Your task to perform on an android device: Search for "bose soundlink" on newegg, select the first entry, and add it to the cart. Image 0: 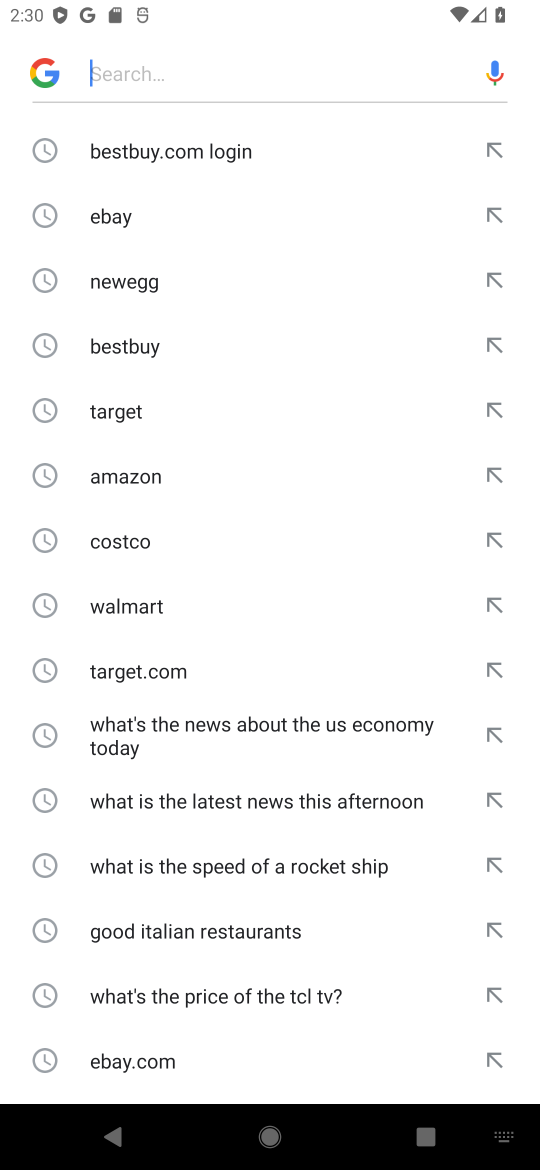
Step 0: press home button
Your task to perform on an android device: Search for "bose soundlink" on newegg, select the first entry, and add it to the cart. Image 1: 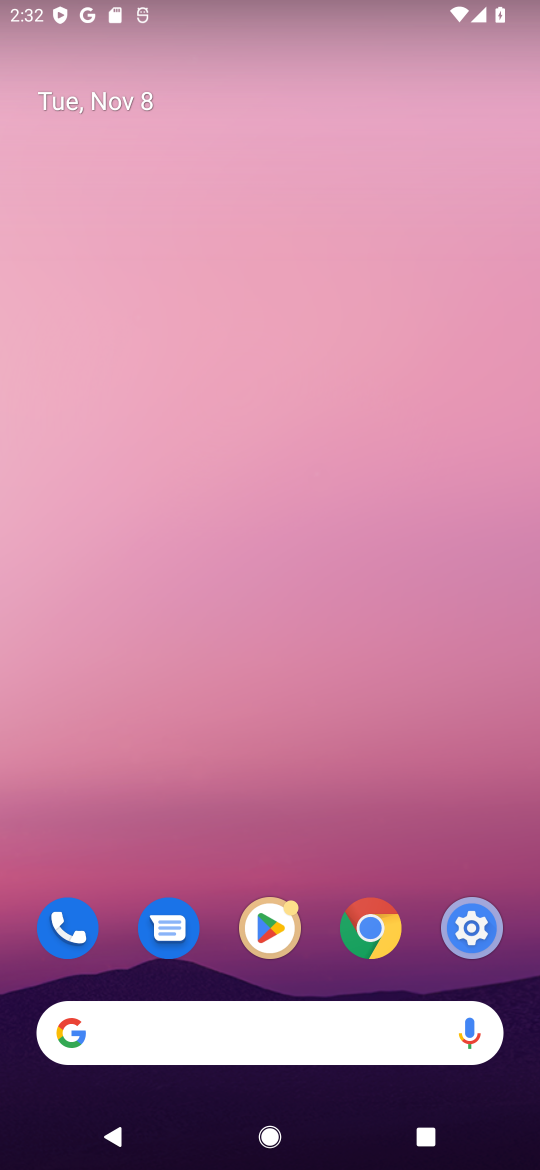
Step 1: drag from (143, 1165) to (234, 1160)
Your task to perform on an android device: Search for "bose soundlink" on newegg, select the first entry, and add it to the cart. Image 2: 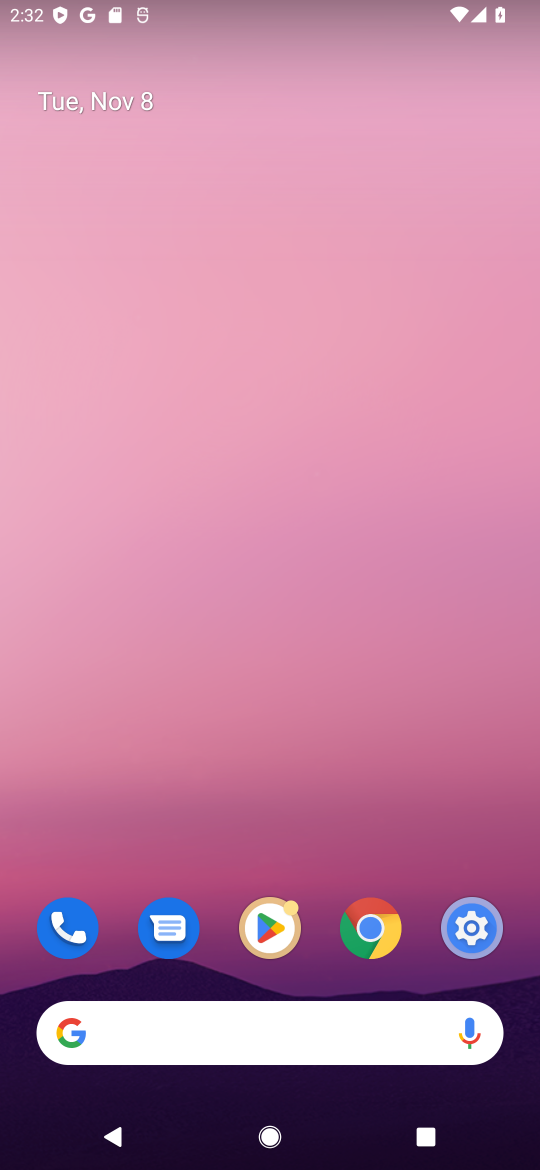
Step 2: click (265, 1033)
Your task to perform on an android device: Search for "bose soundlink" on newegg, select the first entry, and add it to the cart. Image 3: 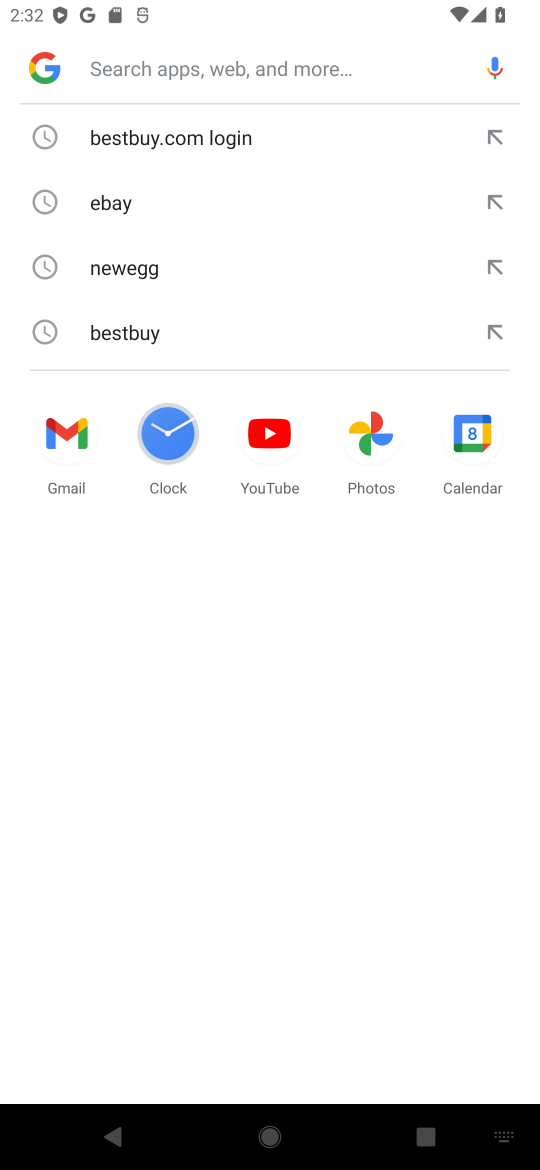
Step 3: type "newegg"
Your task to perform on an android device: Search for "bose soundlink" on newegg, select the first entry, and add it to the cart. Image 4: 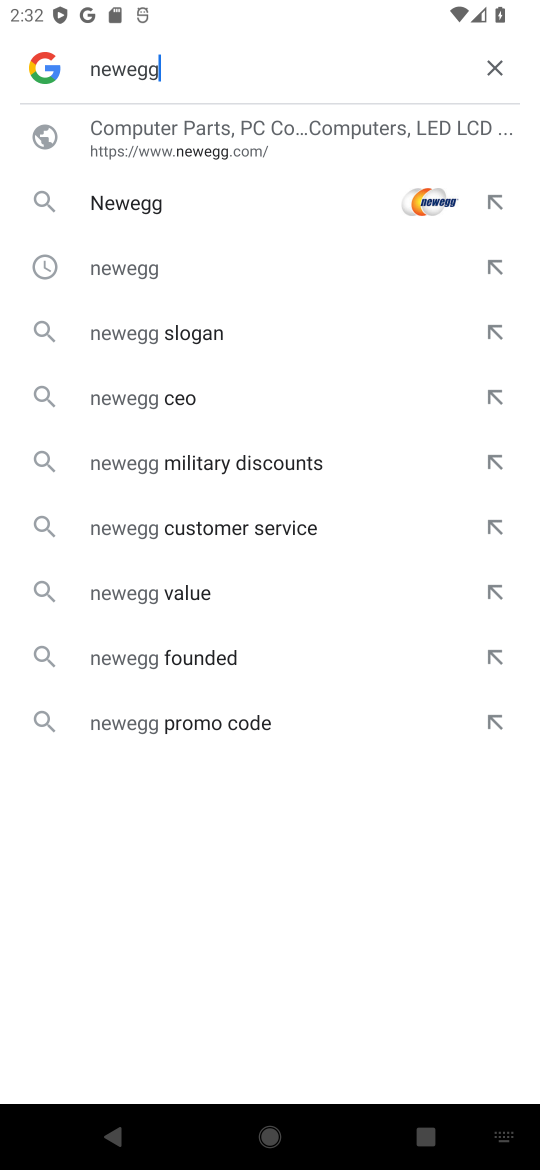
Step 4: click (161, 151)
Your task to perform on an android device: Search for "bose soundlink" on newegg, select the first entry, and add it to the cart. Image 5: 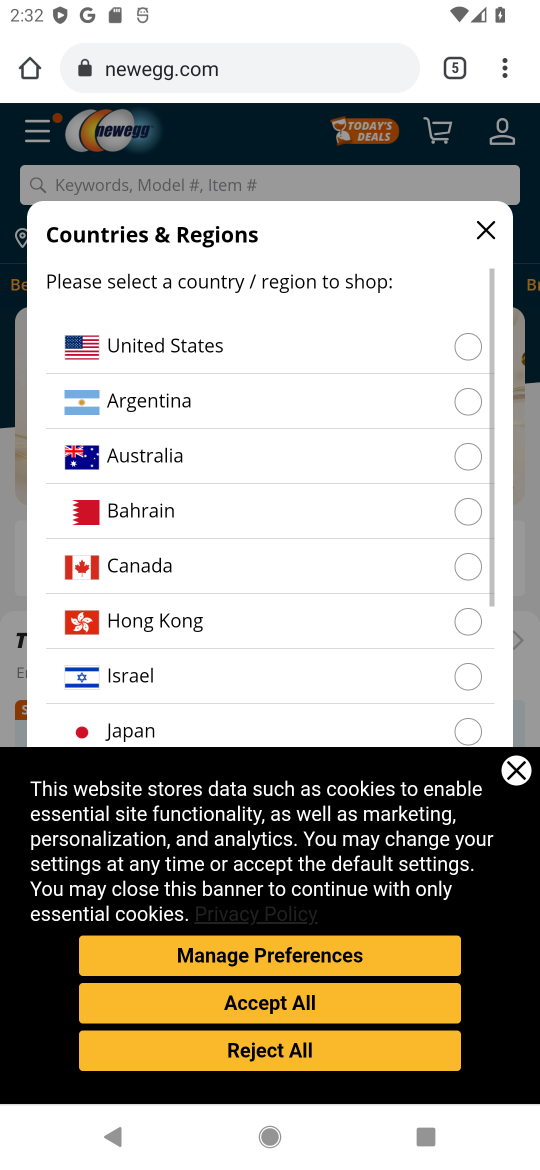
Step 5: click (223, 188)
Your task to perform on an android device: Search for "bose soundlink" on newegg, select the first entry, and add it to the cart. Image 6: 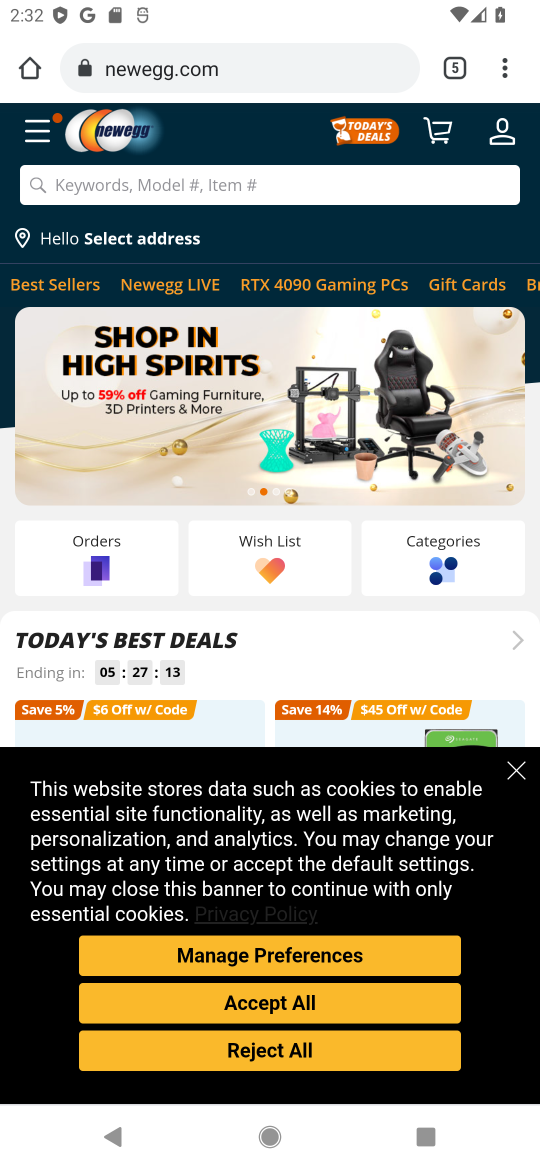
Step 6: click (472, 340)
Your task to perform on an android device: Search for "bose soundlink" on newegg, select the first entry, and add it to the cart. Image 7: 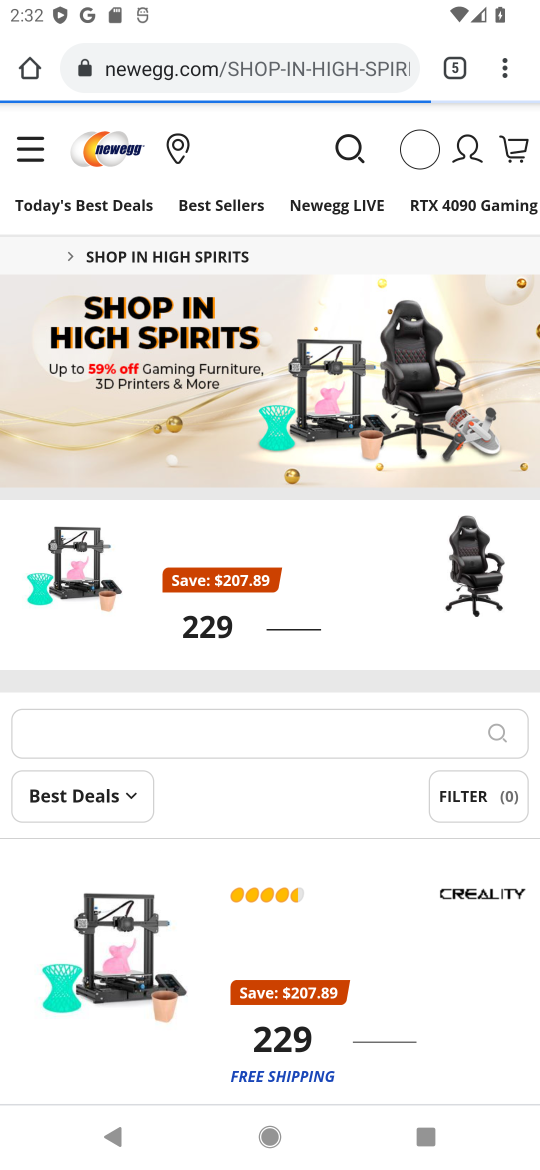
Step 7: click (524, 766)
Your task to perform on an android device: Search for "bose soundlink" on newegg, select the first entry, and add it to the cart. Image 8: 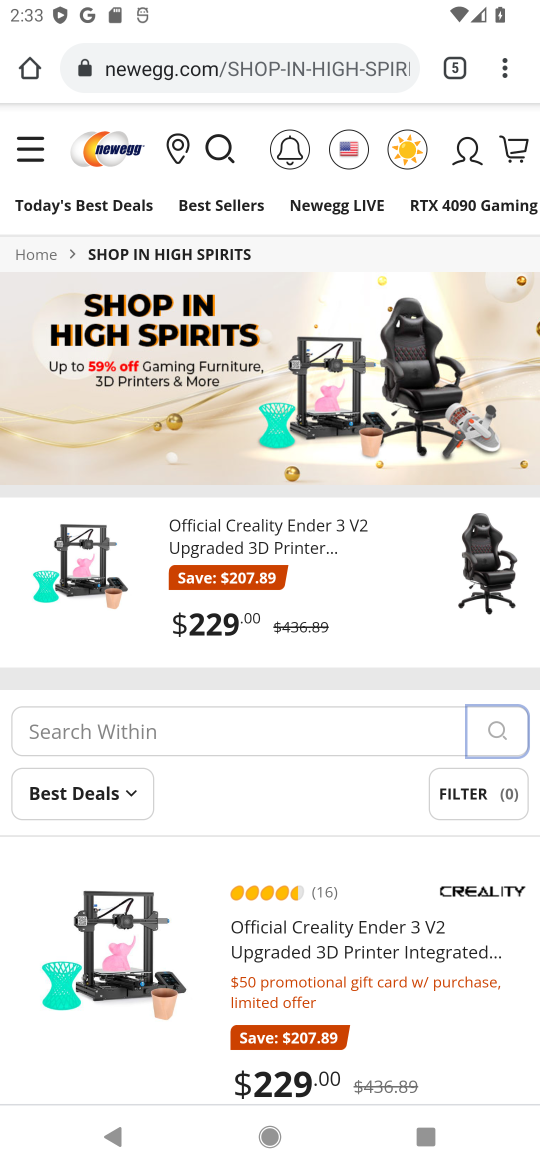
Step 8: click (209, 143)
Your task to perform on an android device: Search for "bose soundlink" on newegg, select the first entry, and add it to the cart. Image 9: 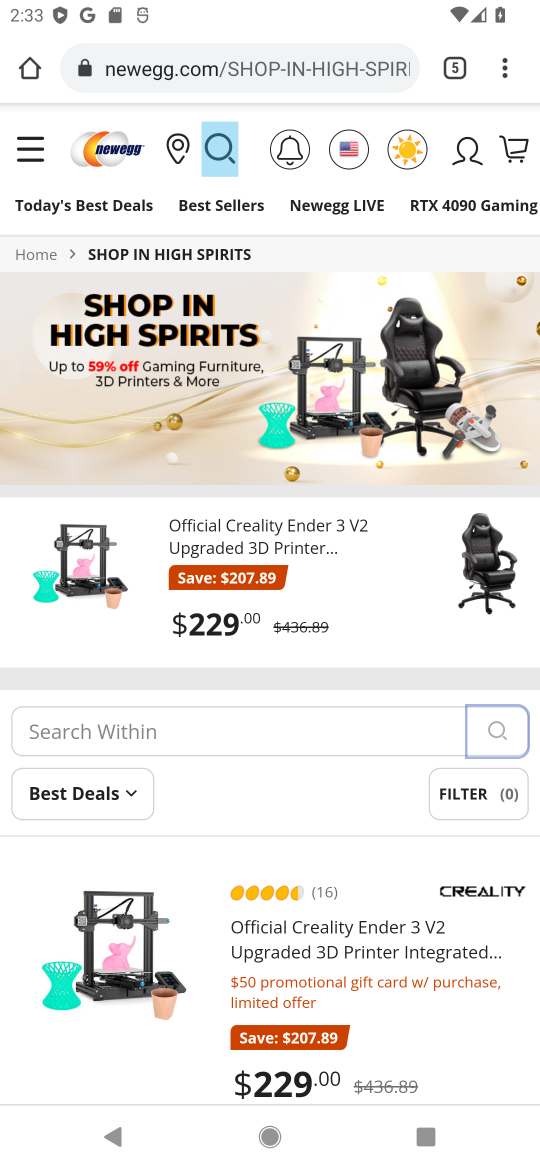
Step 9: click (225, 144)
Your task to perform on an android device: Search for "bose soundlink" on newegg, select the first entry, and add it to the cart. Image 10: 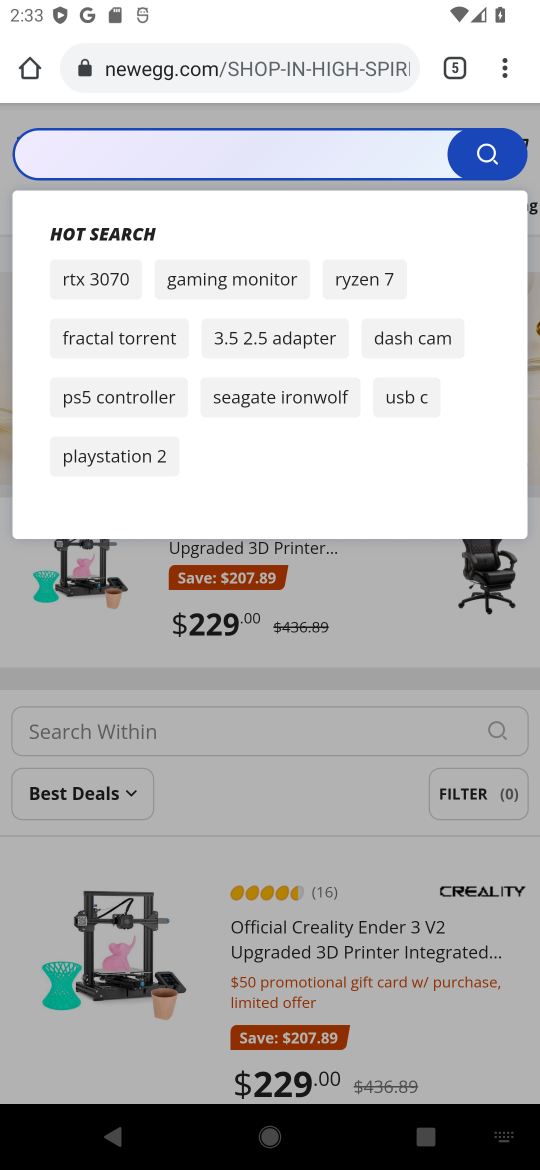
Step 10: type "bose soundlink"
Your task to perform on an android device: Search for "bose soundlink" on newegg, select the first entry, and add it to the cart. Image 11: 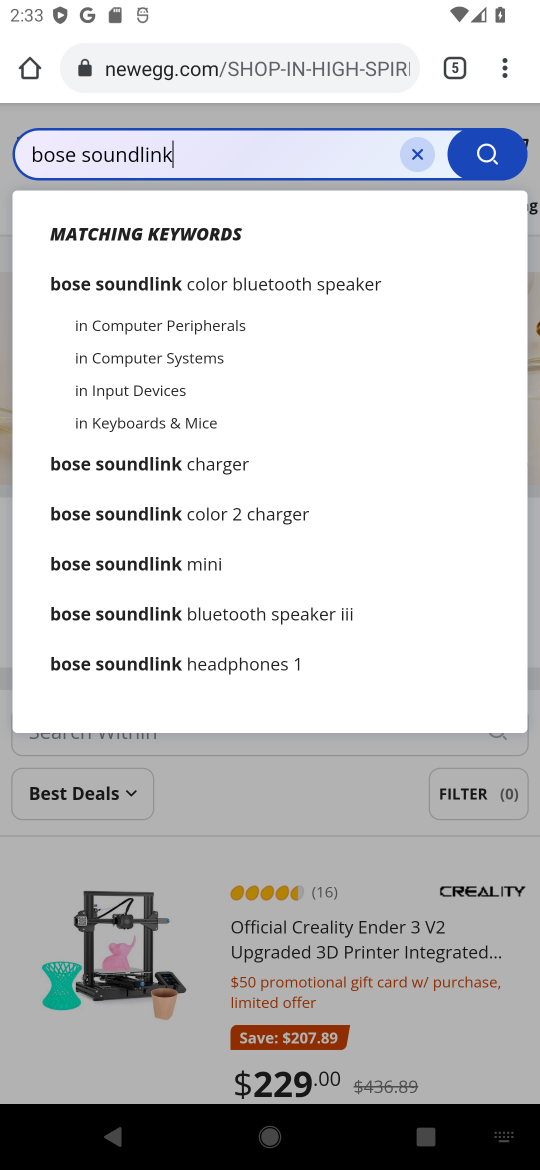
Step 11: click (485, 166)
Your task to perform on an android device: Search for "bose soundlink" on newegg, select the first entry, and add it to the cart. Image 12: 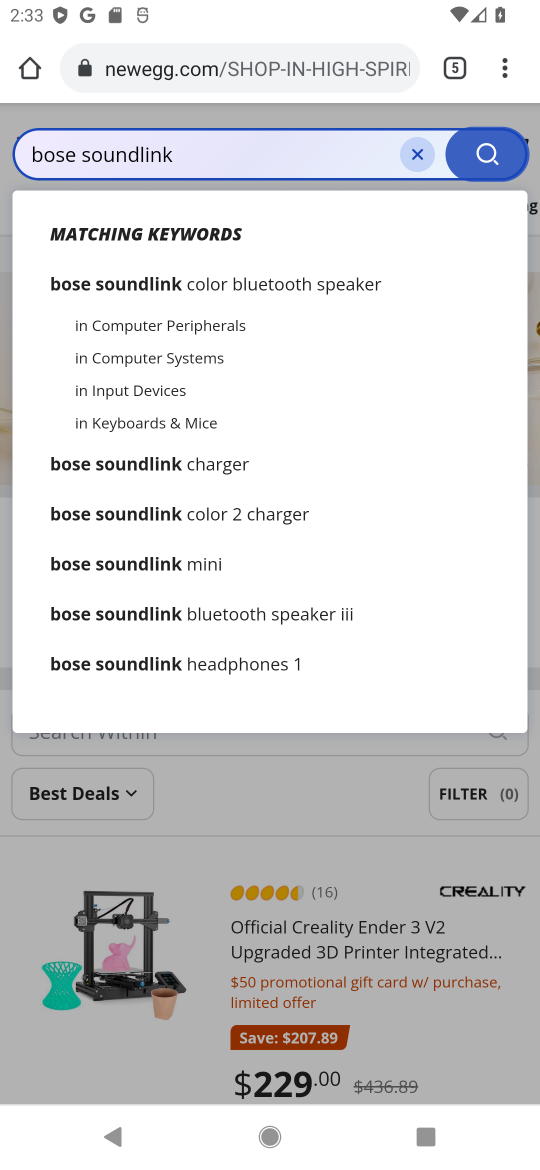
Step 12: click (483, 156)
Your task to perform on an android device: Search for "bose soundlink" on newegg, select the first entry, and add it to the cart. Image 13: 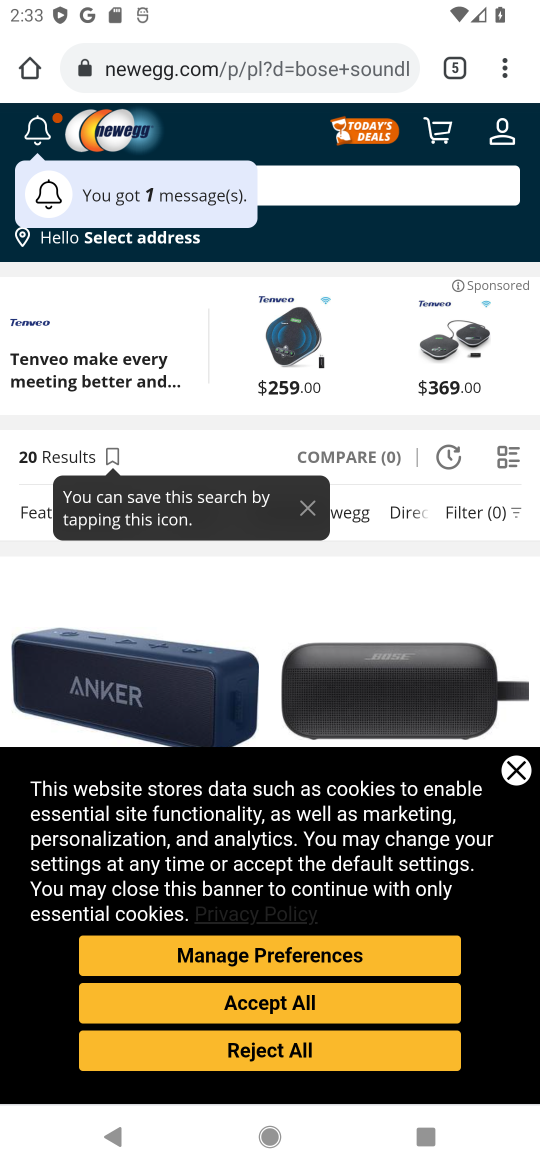
Step 13: click (522, 768)
Your task to perform on an android device: Search for "bose soundlink" on newegg, select the first entry, and add it to the cart. Image 14: 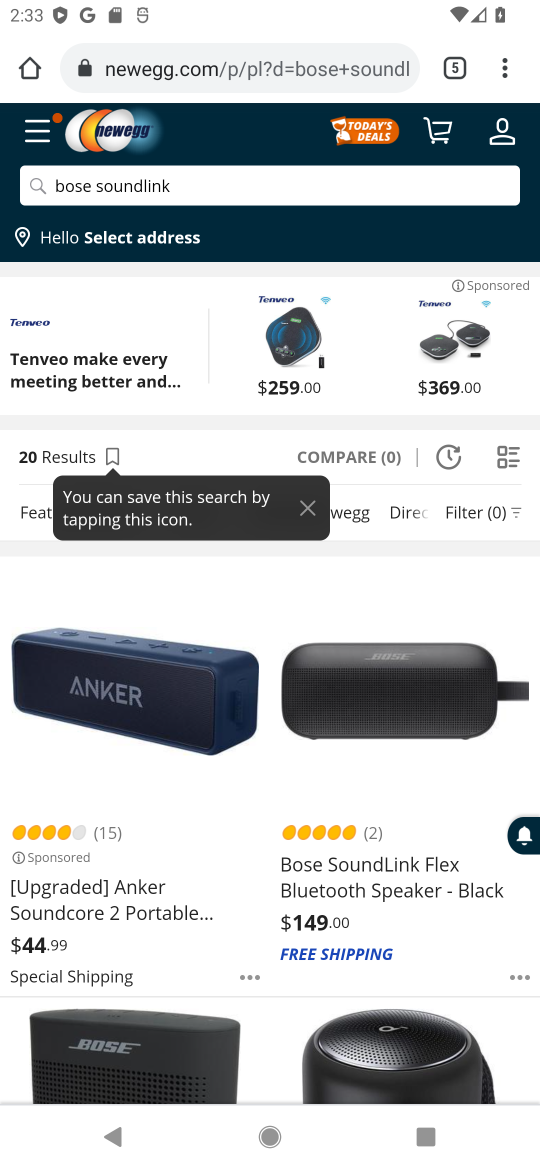
Step 14: click (94, 725)
Your task to perform on an android device: Search for "bose soundlink" on newegg, select the first entry, and add it to the cart. Image 15: 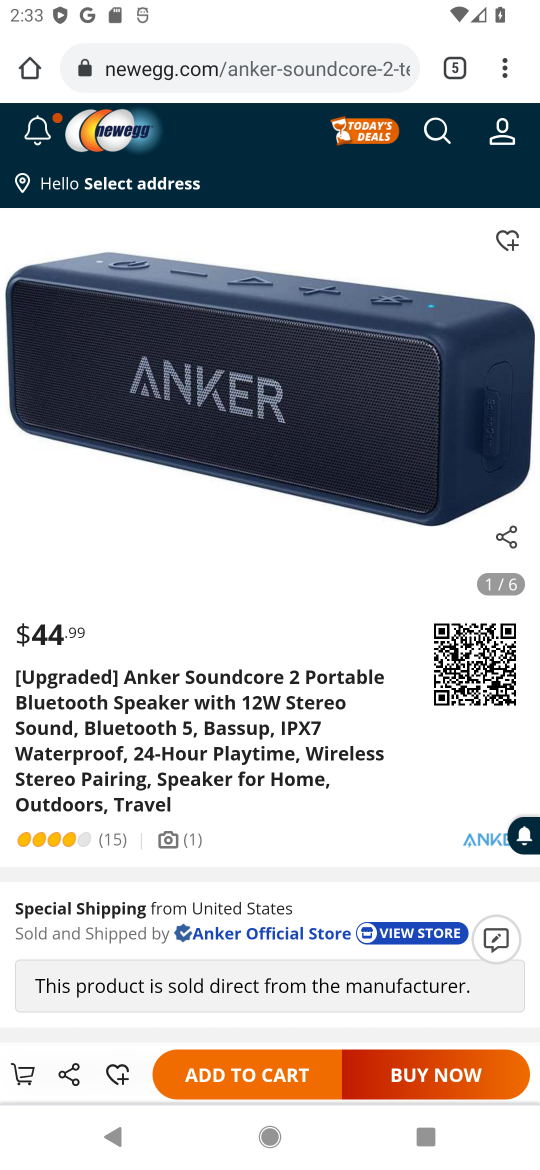
Step 15: click (251, 1078)
Your task to perform on an android device: Search for "bose soundlink" on newegg, select the first entry, and add it to the cart. Image 16: 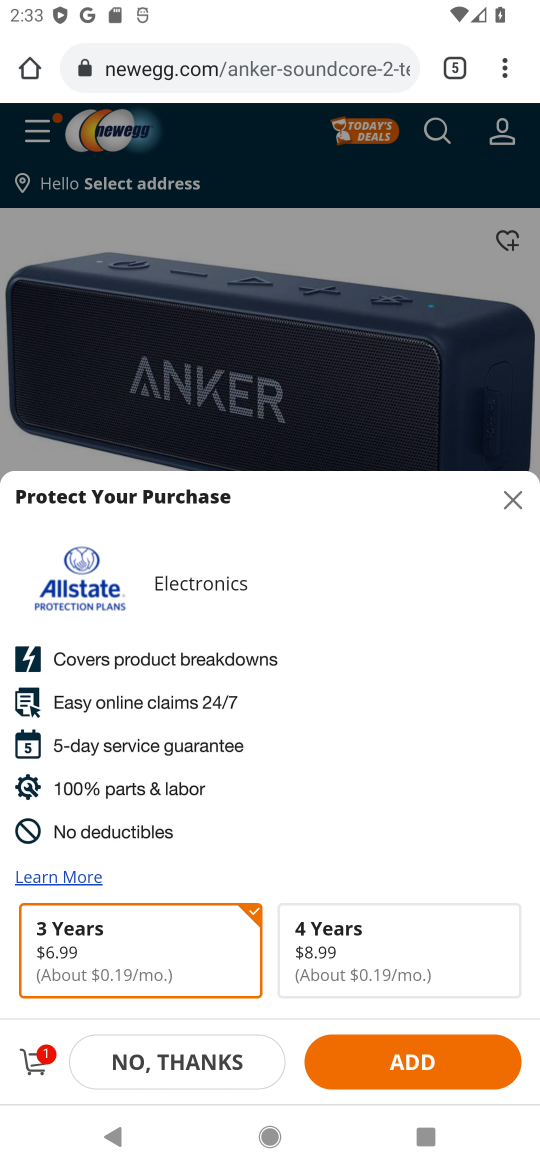
Step 16: click (520, 498)
Your task to perform on an android device: Search for "bose soundlink" on newegg, select the first entry, and add it to the cart. Image 17: 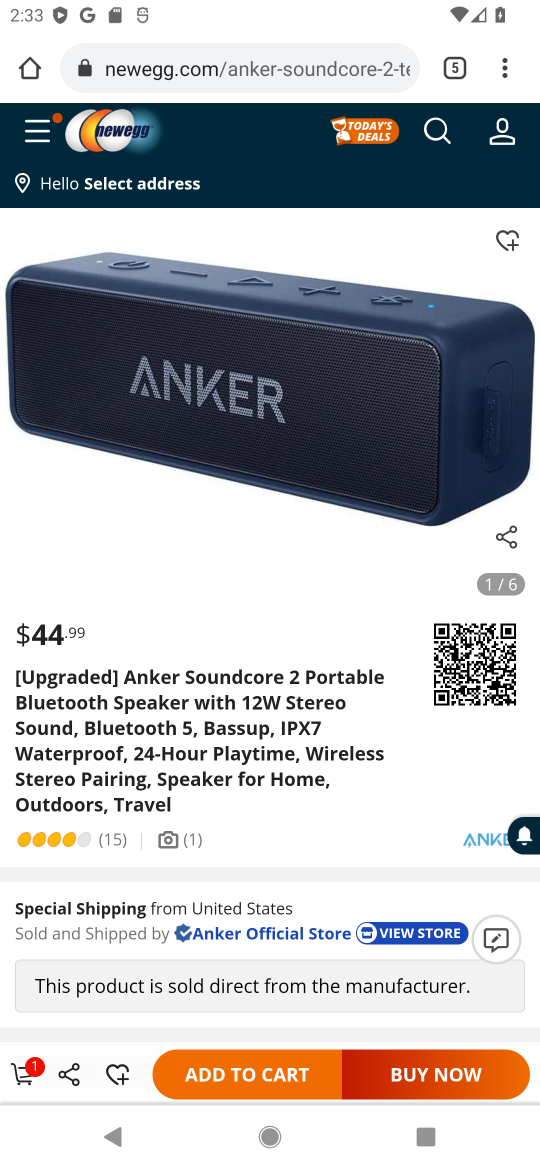
Step 17: task complete